Your task to perform on an android device: all mails in gmail Image 0: 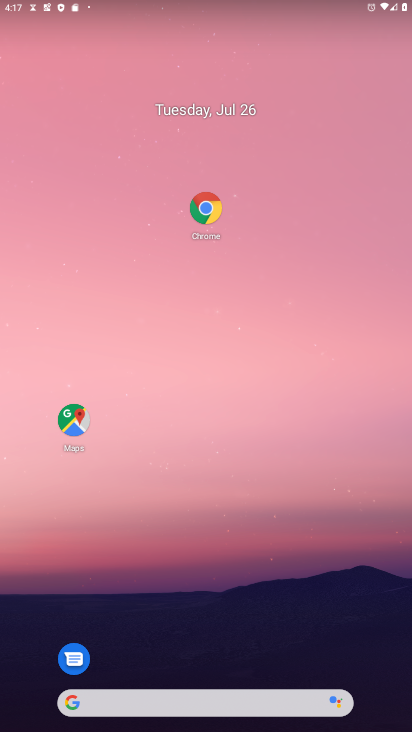
Step 0: drag from (175, 664) to (194, 141)
Your task to perform on an android device: all mails in gmail Image 1: 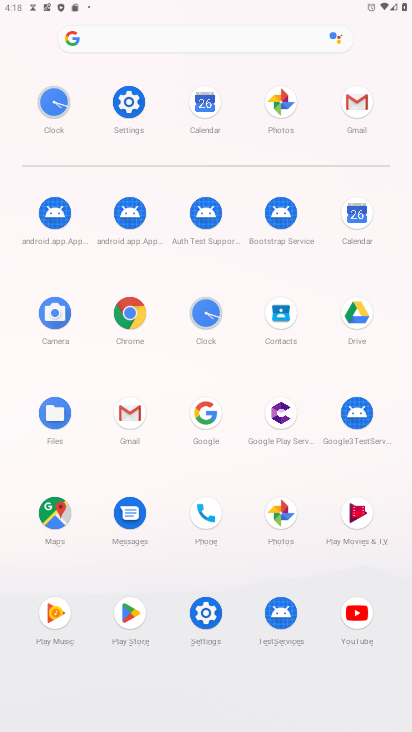
Step 1: press home button
Your task to perform on an android device: all mails in gmail Image 2: 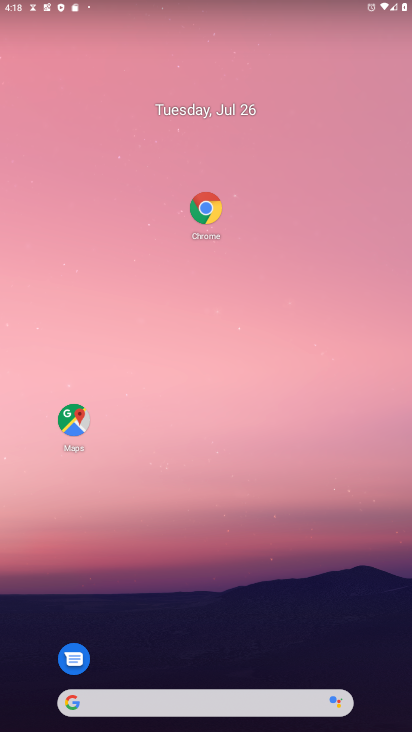
Step 2: drag from (191, 652) to (196, 198)
Your task to perform on an android device: all mails in gmail Image 3: 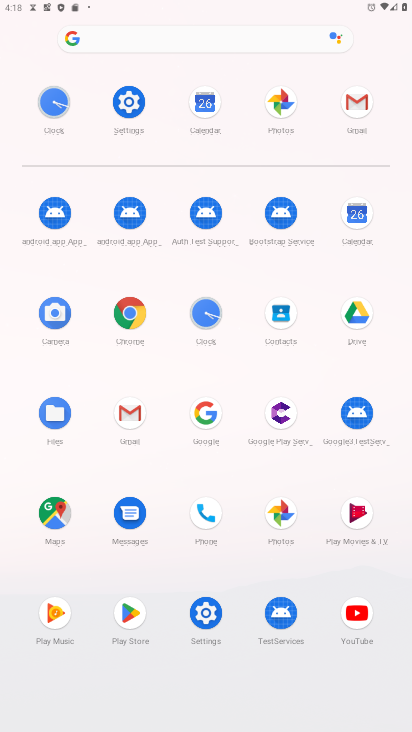
Step 3: click (354, 114)
Your task to perform on an android device: all mails in gmail Image 4: 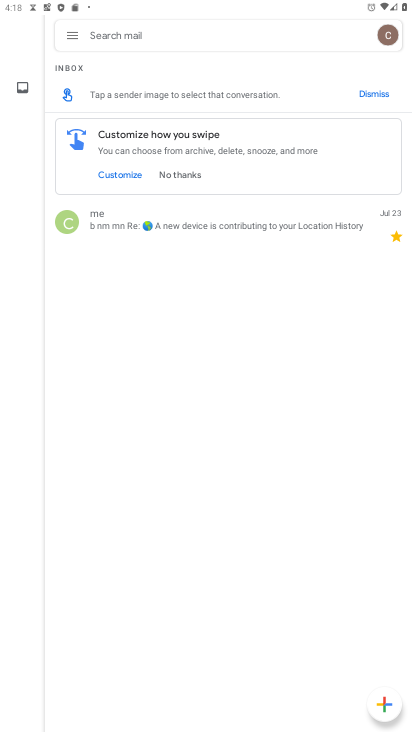
Step 4: click (74, 31)
Your task to perform on an android device: all mails in gmail Image 5: 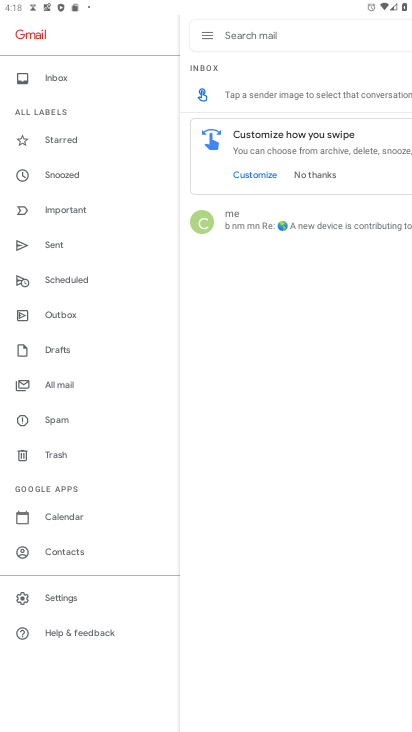
Step 5: click (61, 390)
Your task to perform on an android device: all mails in gmail Image 6: 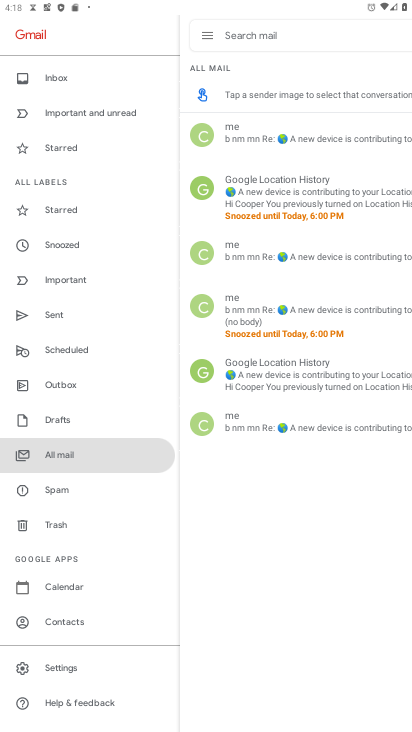
Step 6: task complete